Your task to perform on an android device: Show me the alarms in the clock app Image 0: 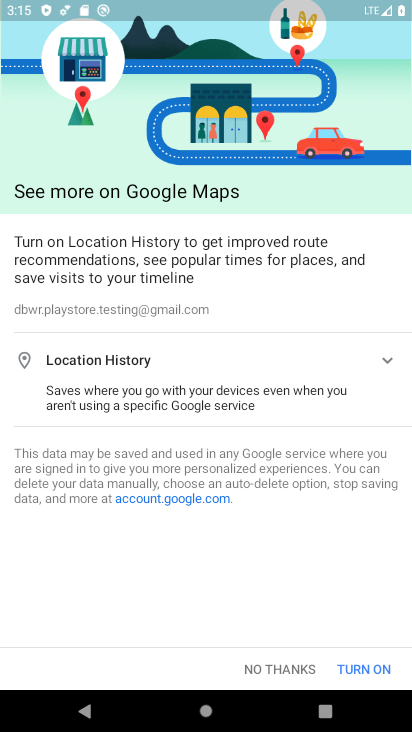
Step 0: press home button
Your task to perform on an android device: Show me the alarms in the clock app Image 1: 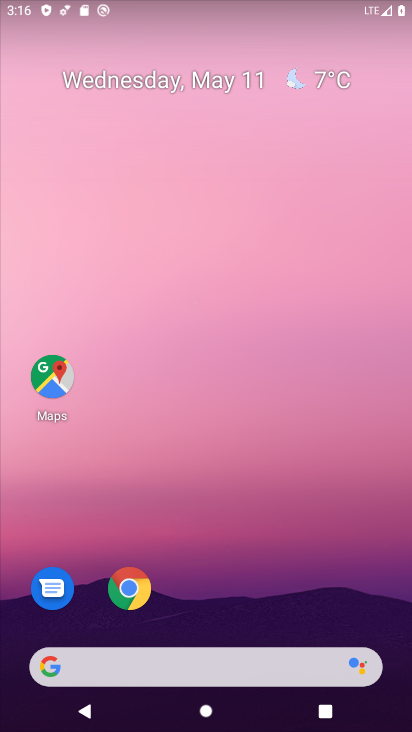
Step 1: drag from (217, 704) to (207, 284)
Your task to perform on an android device: Show me the alarms in the clock app Image 2: 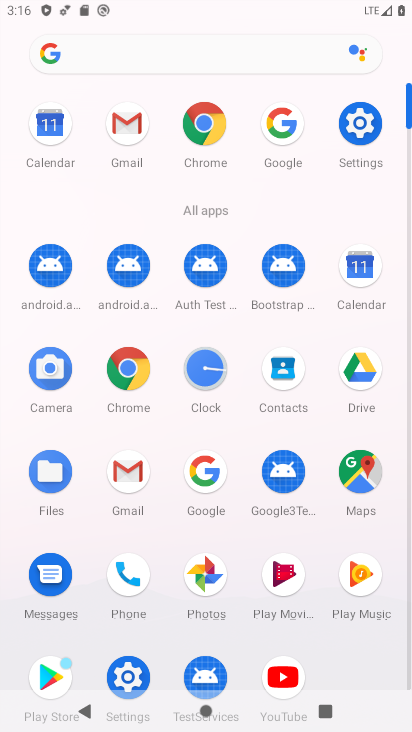
Step 2: click (204, 377)
Your task to perform on an android device: Show me the alarms in the clock app Image 3: 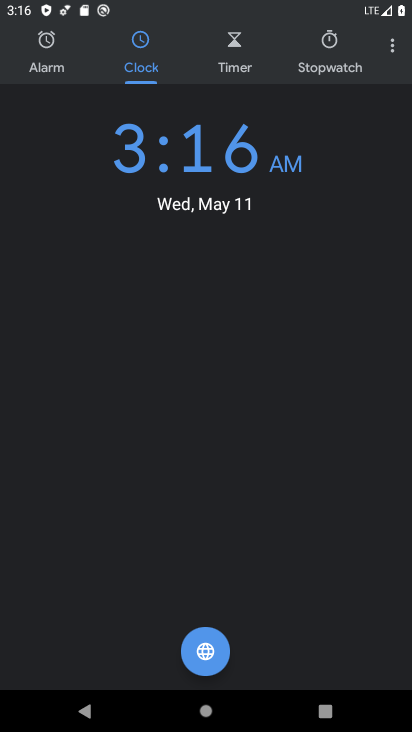
Step 3: click (52, 55)
Your task to perform on an android device: Show me the alarms in the clock app Image 4: 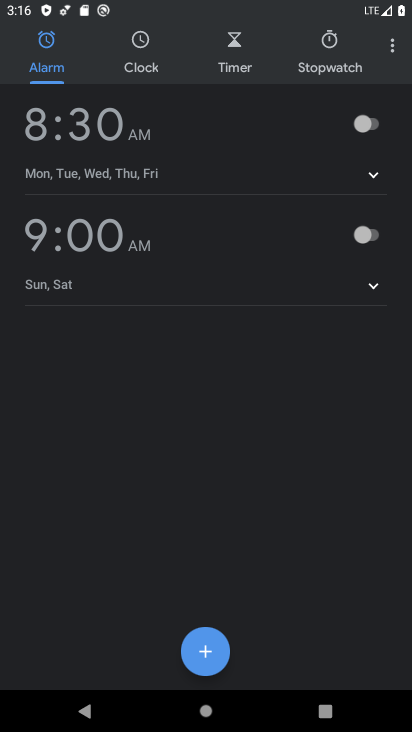
Step 4: task complete